Your task to perform on an android device: Go to Maps Image 0: 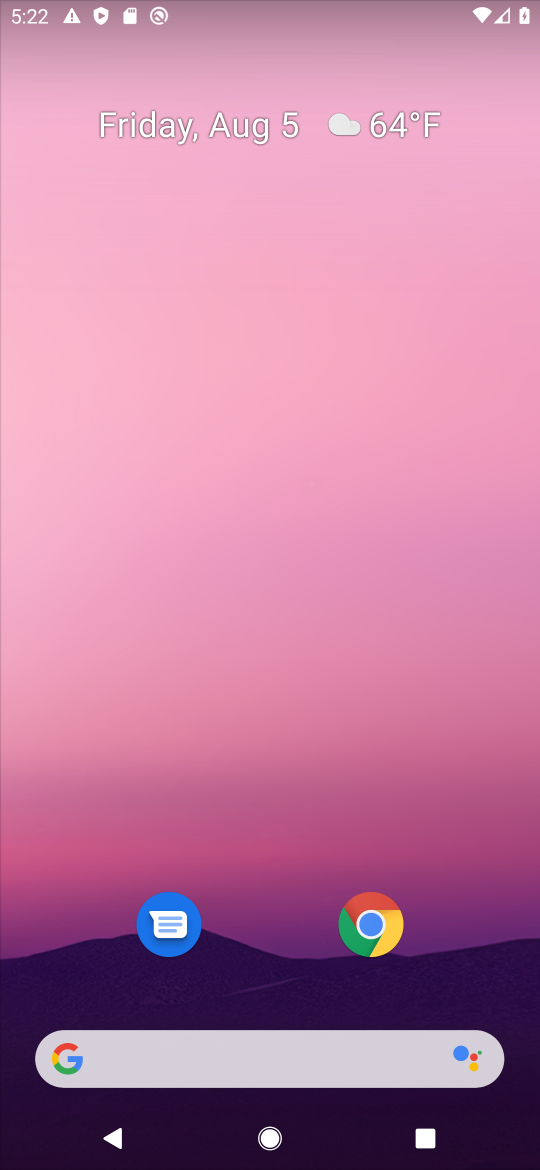
Step 0: drag from (186, 1094) to (290, 238)
Your task to perform on an android device: Go to Maps Image 1: 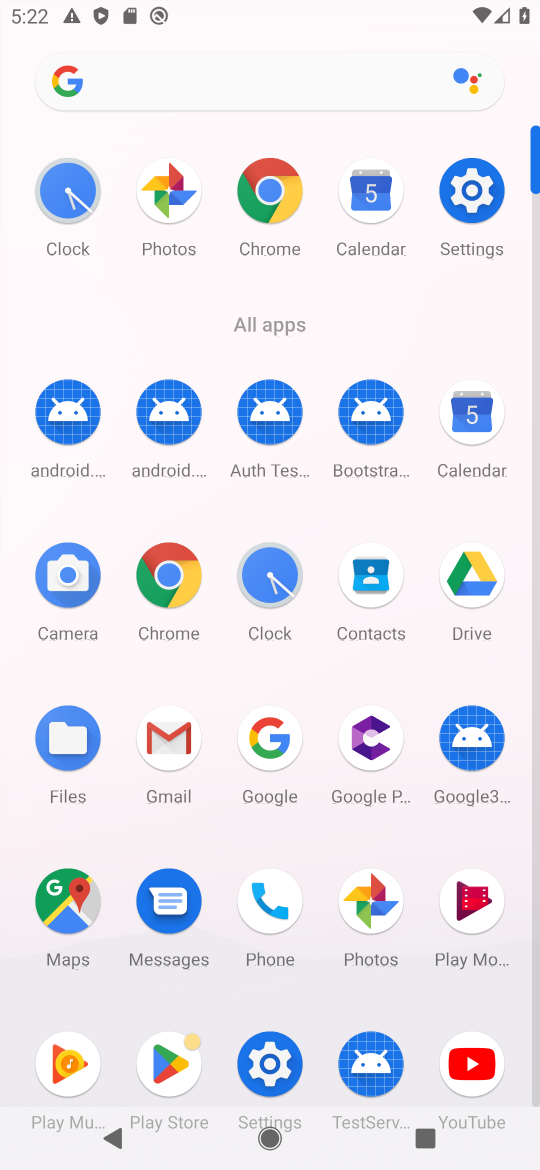
Step 1: click (64, 899)
Your task to perform on an android device: Go to Maps Image 2: 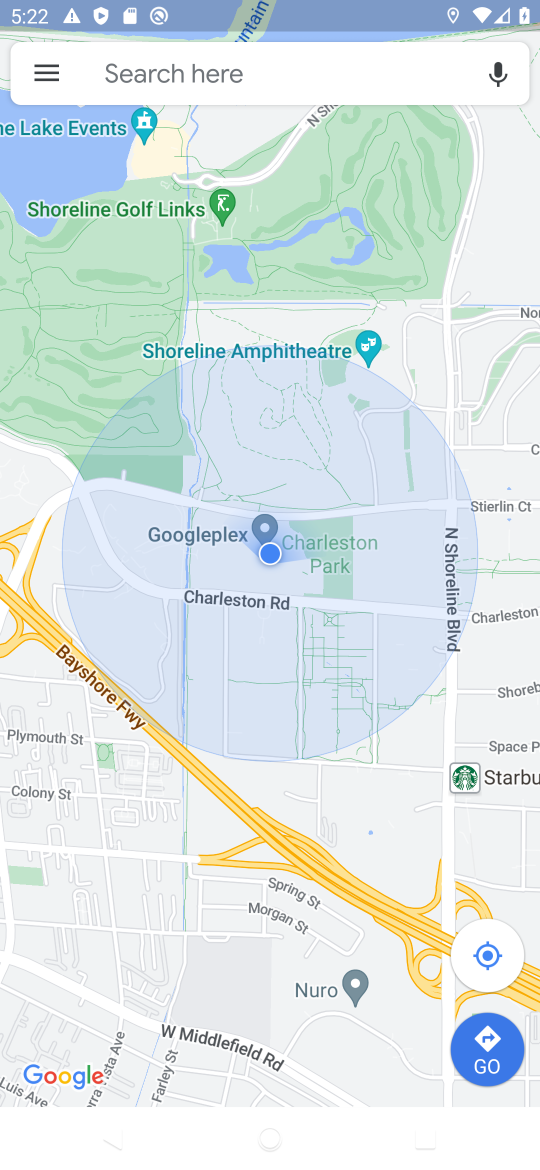
Step 2: task complete